Your task to perform on an android device: turn vacation reply on in the gmail app Image 0: 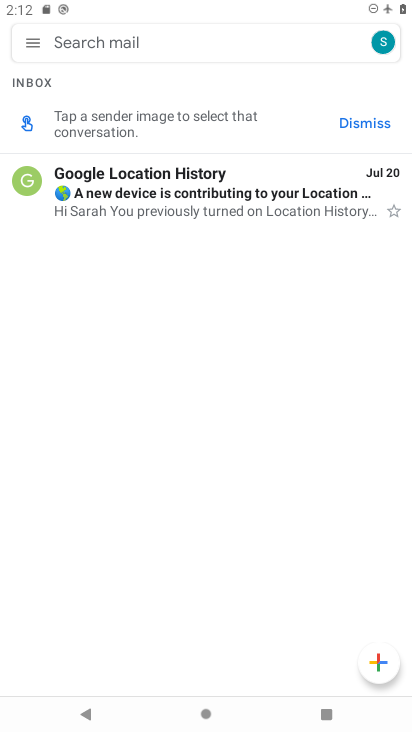
Step 0: click (32, 40)
Your task to perform on an android device: turn vacation reply on in the gmail app Image 1: 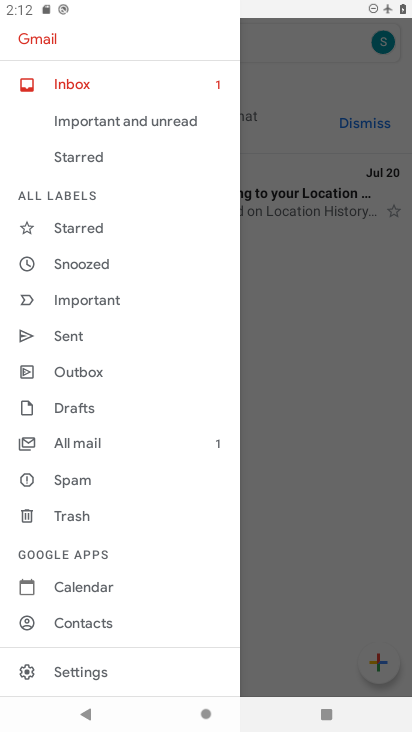
Step 1: click (74, 668)
Your task to perform on an android device: turn vacation reply on in the gmail app Image 2: 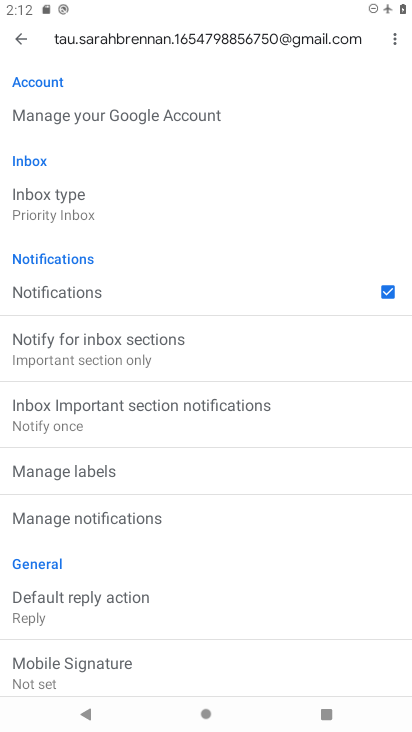
Step 2: drag from (135, 662) to (121, 346)
Your task to perform on an android device: turn vacation reply on in the gmail app Image 3: 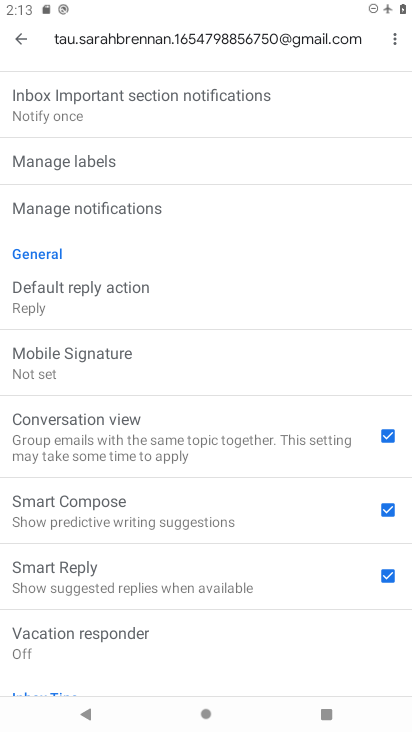
Step 3: click (112, 630)
Your task to perform on an android device: turn vacation reply on in the gmail app Image 4: 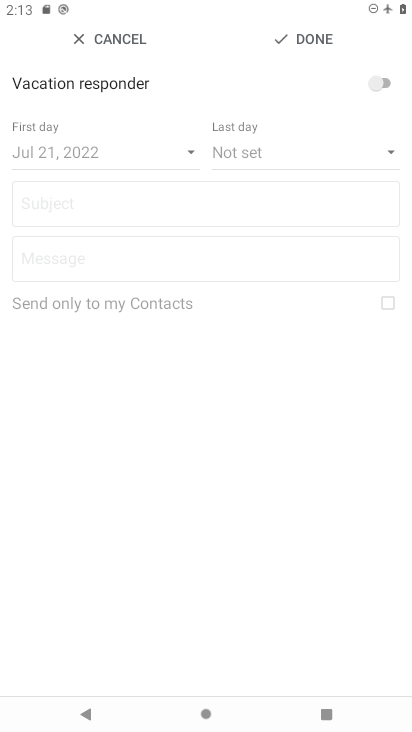
Step 4: click (381, 80)
Your task to perform on an android device: turn vacation reply on in the gmail app Image 5: 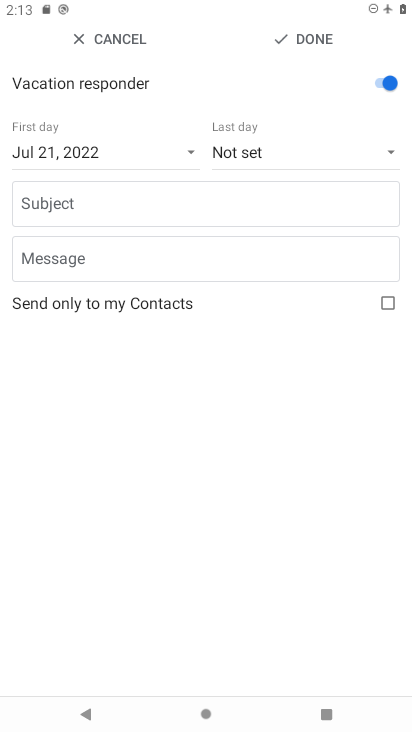
Step 5: task complete